Your task to perform on an android device: open a bookmark in the chrome app Image 0: 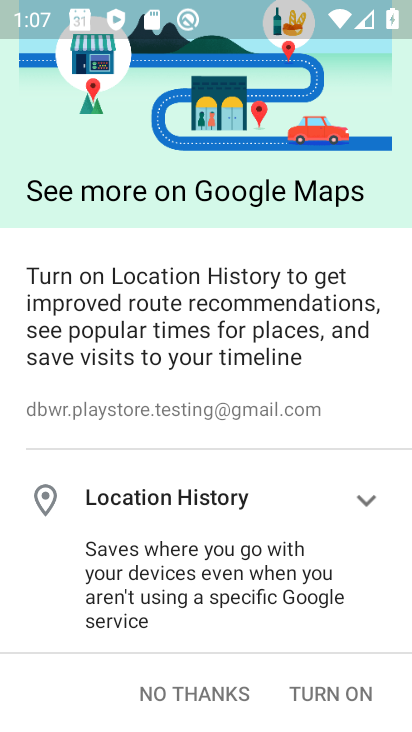
Step 0: press home button
Your task to perform on an android device: open a bookmark in the chrome app Image 1: 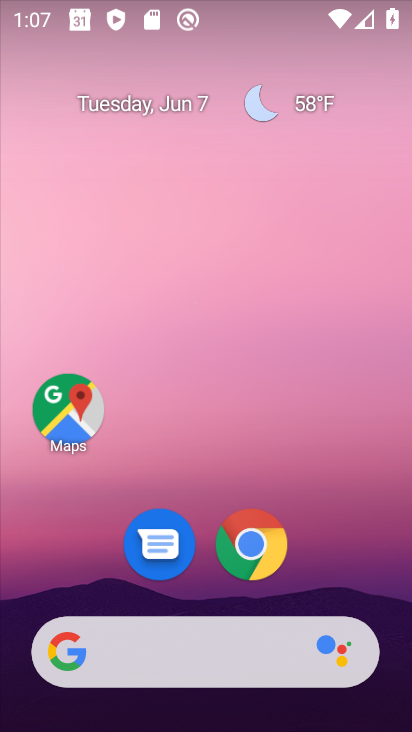
Step 1: click (235, 550)
Your task to perform on an android device: open a bookmark in the chrome app Image 2: 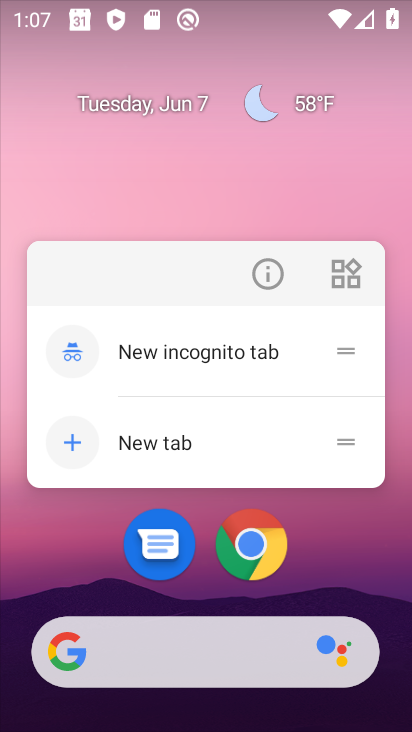
Step 2: click (231, 549)
Your task to perform on an android device: open a bookmark in the chrome app Image 3: 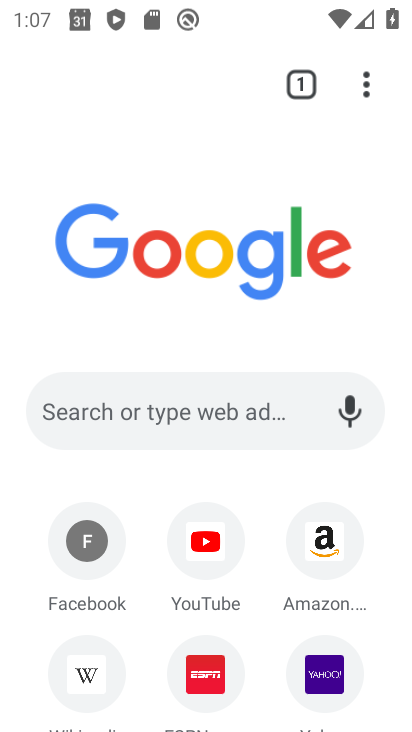
Step 3: click (359, 88)
Your task to perform on an android device: open a bookmark in the chrome app Image 4: 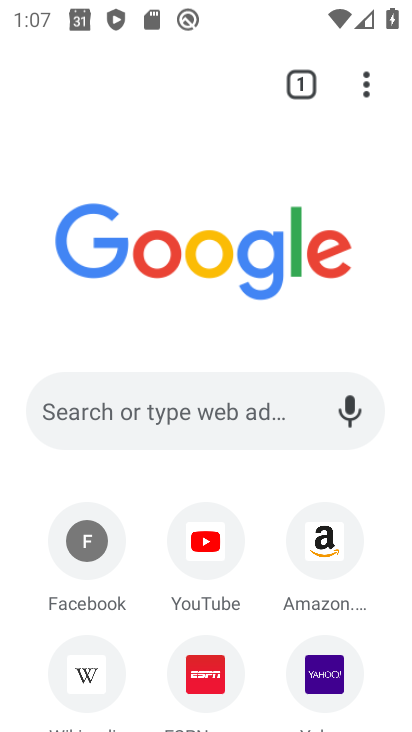
Step 4: task complete